Your task to perform on an android device: open app "TextNow: Call + Text Unlimited" (install if not already installed) Image 0: 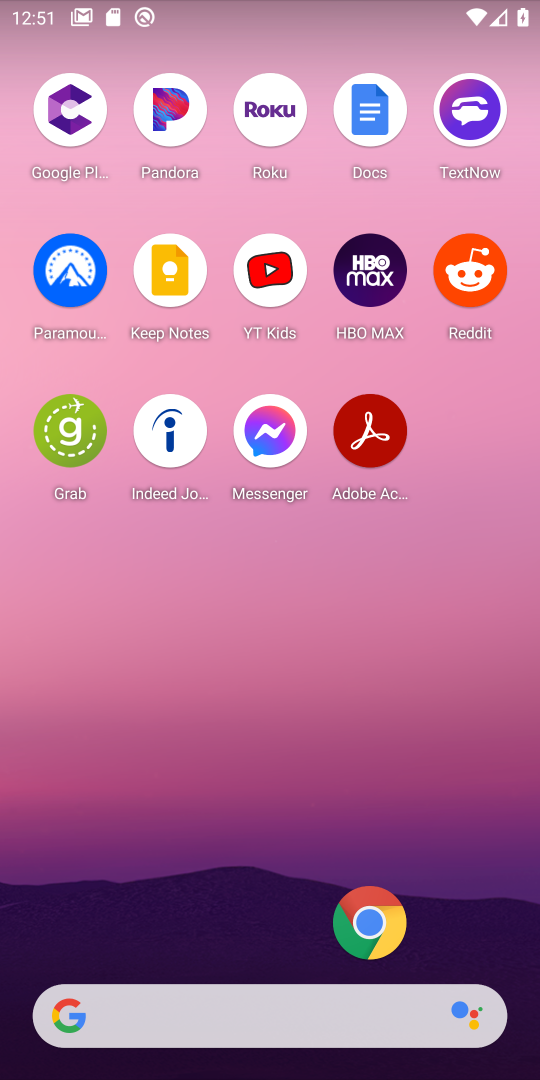
Step 0: drag from (251, 920) to (321, 248)
Your task to perform on an android device: open app "TextNow: Call + Text Unlimited" (install if not already installed) Image 1: 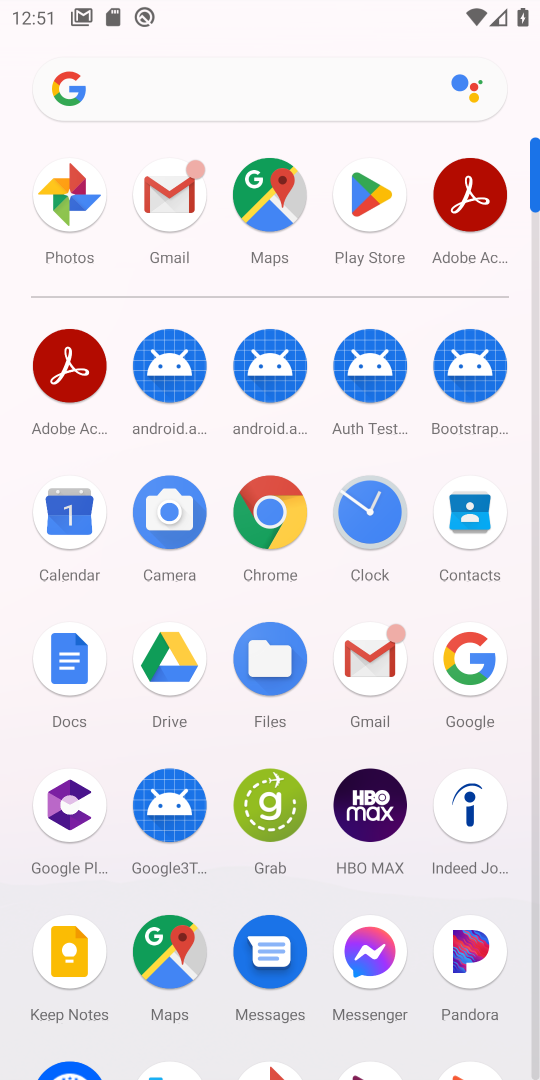
Step 1: click (351, 183)
Your task to perform on an android device: open app "TextNow: Call + Text Unlimited" (install if not already installed) Image 2: 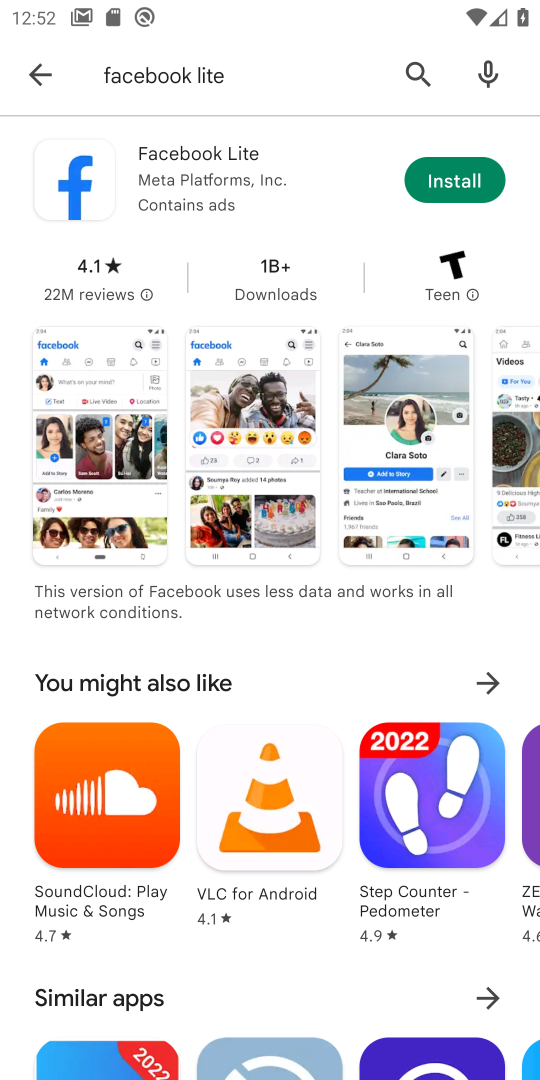
Step 2: click (408, 74)
Your task to perform on an android device: open app "TextNow: Call + Text Unlimited" (install if not already installed) Image 3: 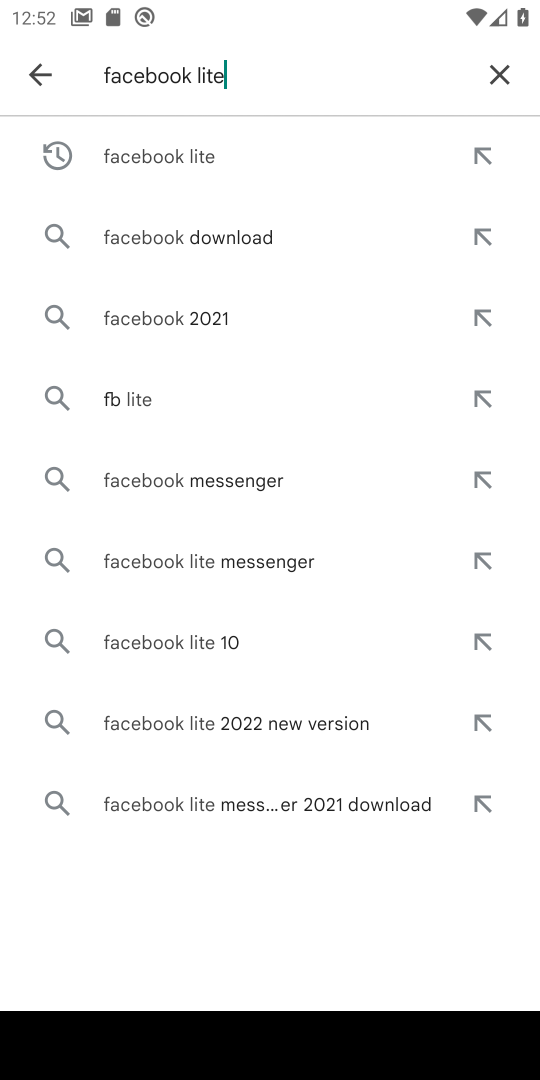
Step 3: click (494, 69)
Your task to perform on an android device: open app "TextNow: Call + Text Unlimited" (install if not already installed) Image 4: 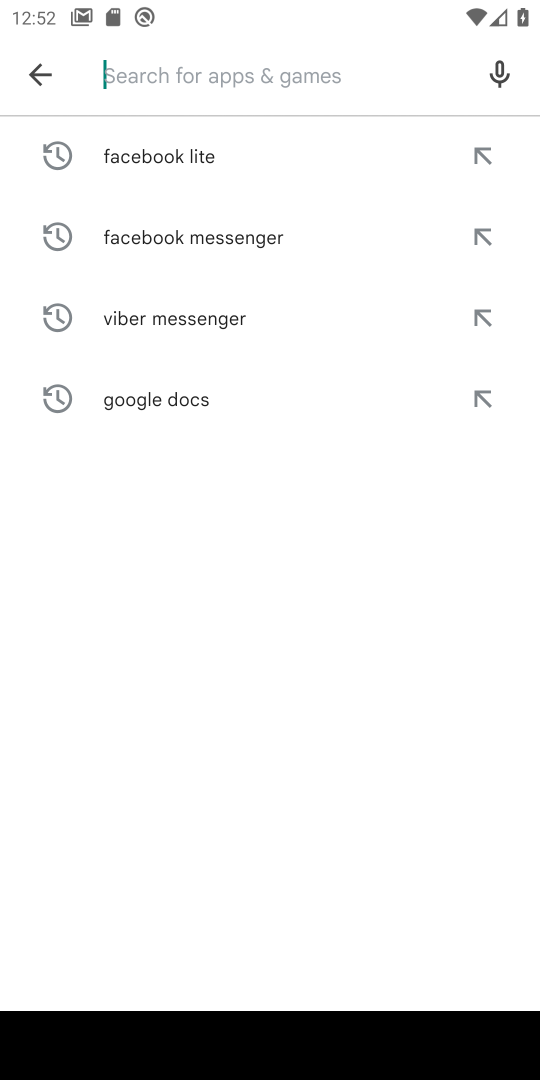
Step 4: type "TextNow: Call + Text Unlimited"
Your task to perform on an android device: open app "TextNow: Call + Text Unlimited" (install if not already installed) Image 5: 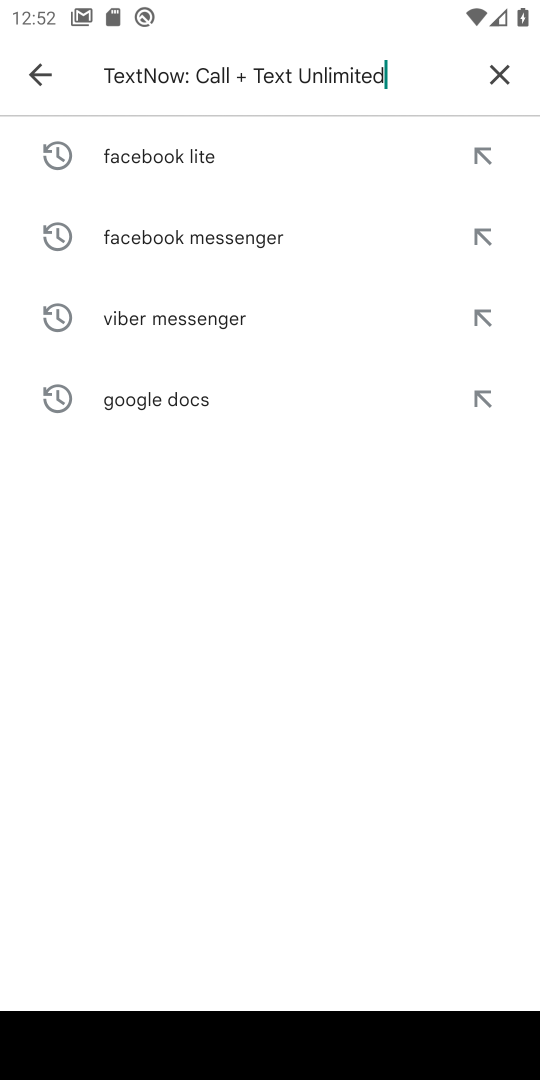
Step 5: type ""
Your task to perform on an android device: open app "TextNow: Call + Text Unlimited" (install if not already installed) Image 6: 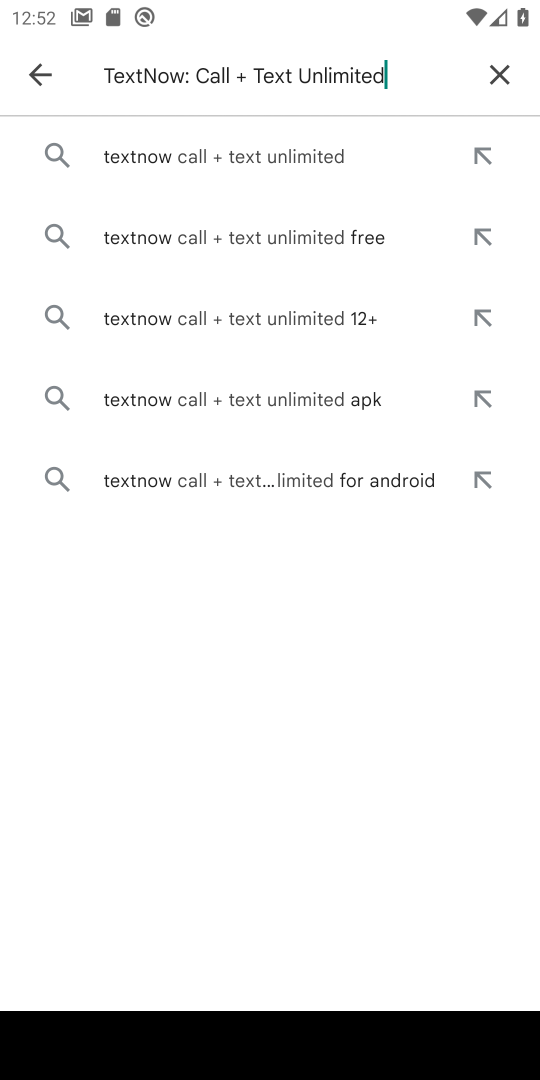
Step 6: click (299, 159)
Your task to perform on an android device: open app "TextNow: Call + Text Unlimited" (install if not already installed) Image 7: 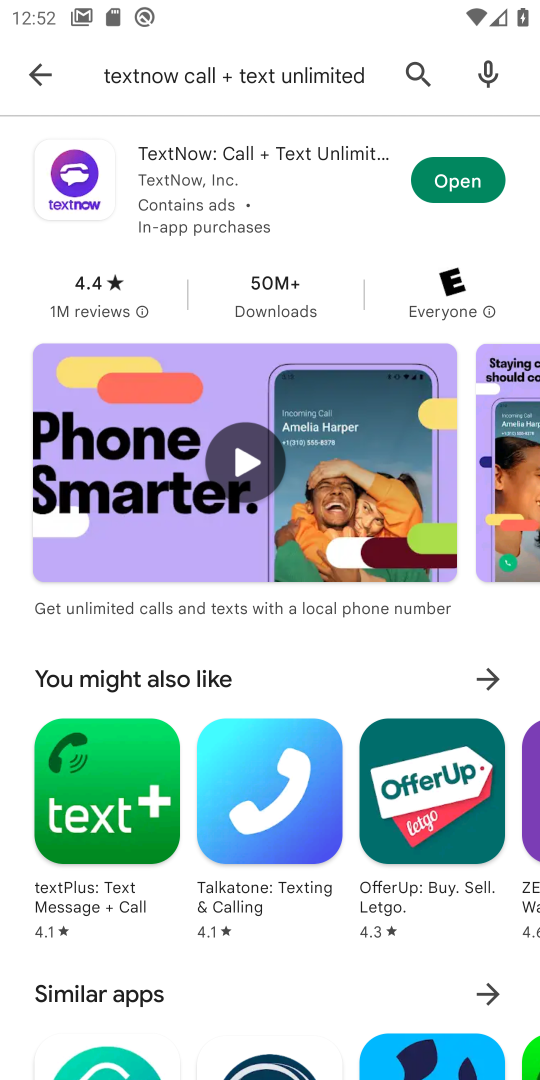
Step 7: click (454, 193)
Your task to perform on an android device: open app "TextNow: Call + Text Unlimited" (install if not already installed) Image 8: 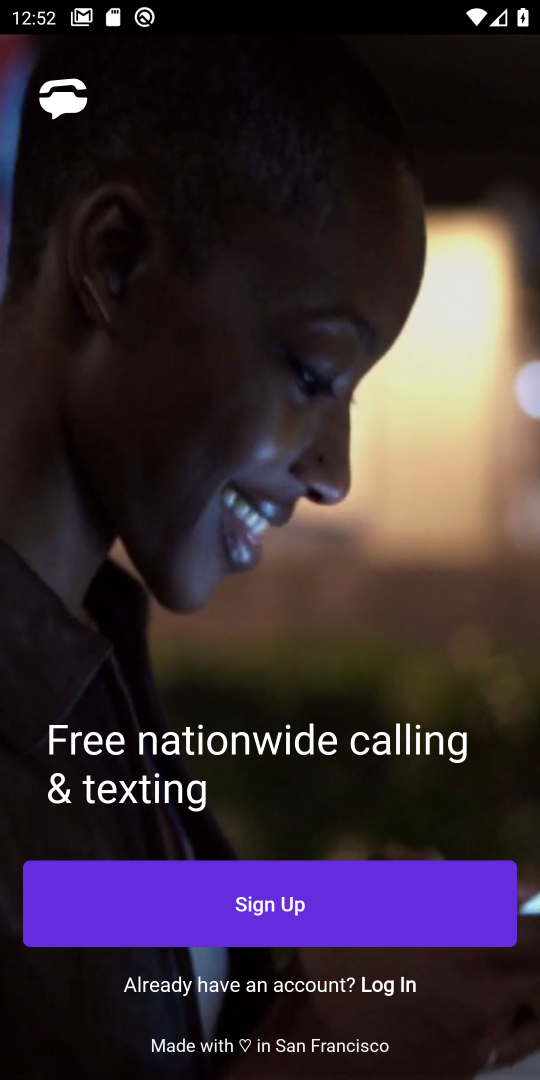
Step 8: task complete